Your task to perform on an android device: Go to Google maps Image 0: 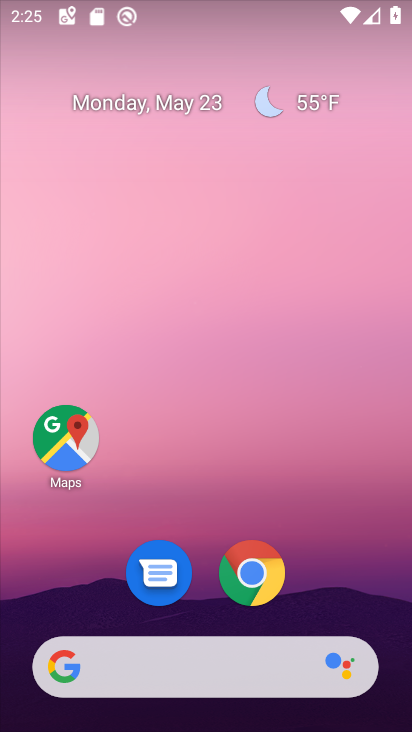
Step 0: click (68, 442)
Your task to perform on an android device: Go to Google maps Image 1: 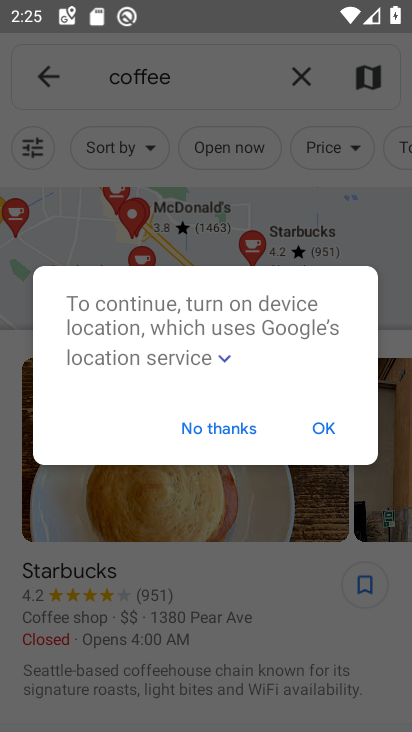
Step 1: click (327, 424)
Your task to perform on an android device: Go to Google maps Image 2: 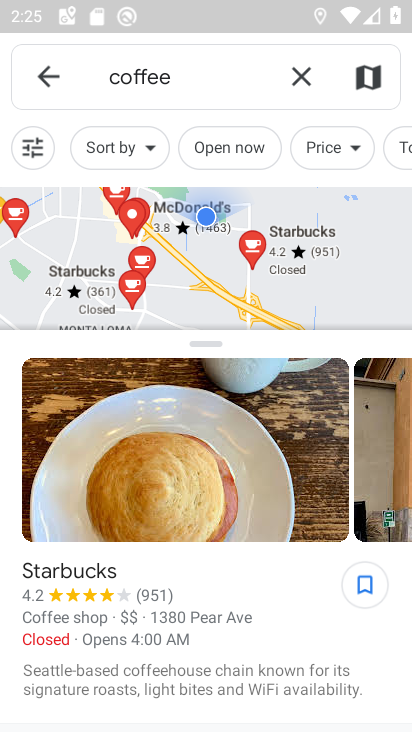
Step 2: task complete